Your task to perform on an android device: set the stopwatch Image 0: 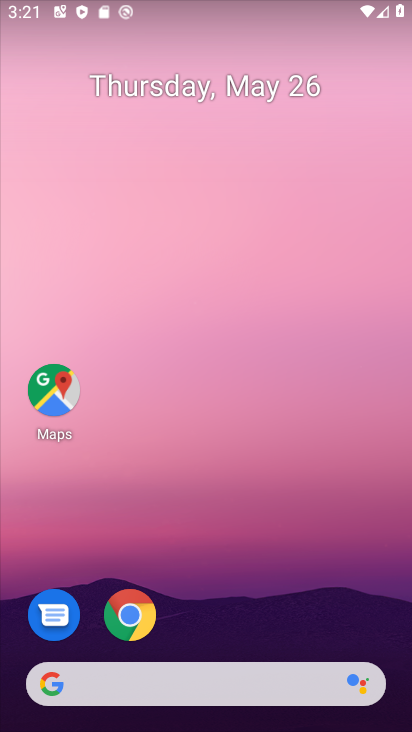
Step 0: drag from (351, 674) to (349, 51)
Your task to perform on an android device: set the stopwatch Image 1: 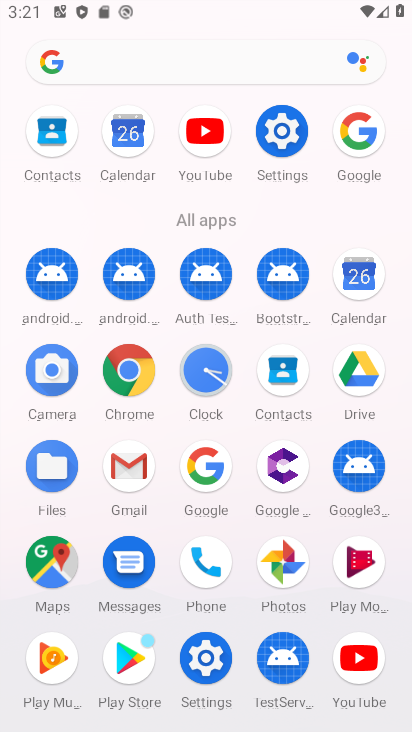
Step 1: click (211, 371)
Your task to perform on an android device: set the stopwatch Image 2: 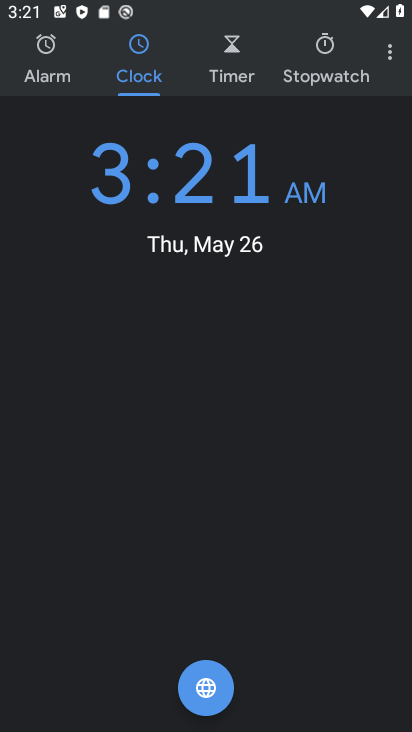
Step 2: click (320, 59)
Your task to perform on an android device: set the stopwatch Image 3: 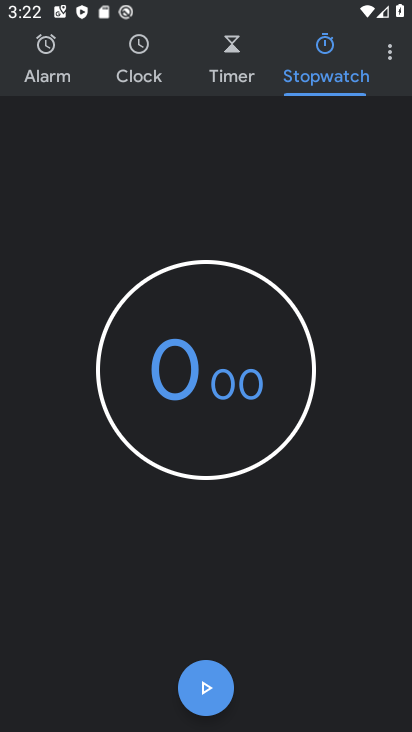
Step 3: task complete